Your task to perform on an android device: toggle wifi Image 0: 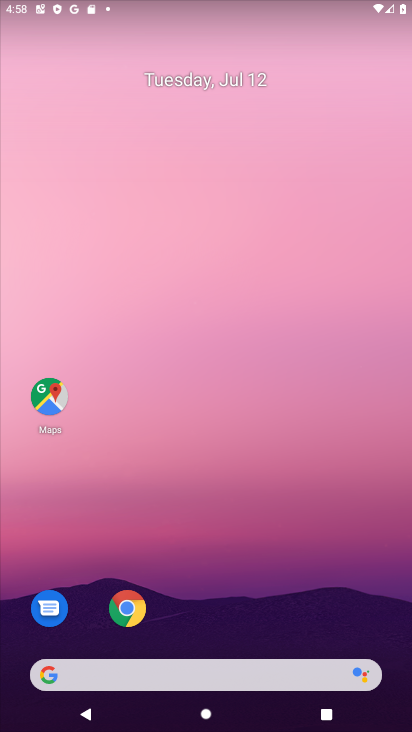
Step 0: drag from (132, 9) to (180, 604)
Your task to perform on an android device: toggle wifi Image 1: 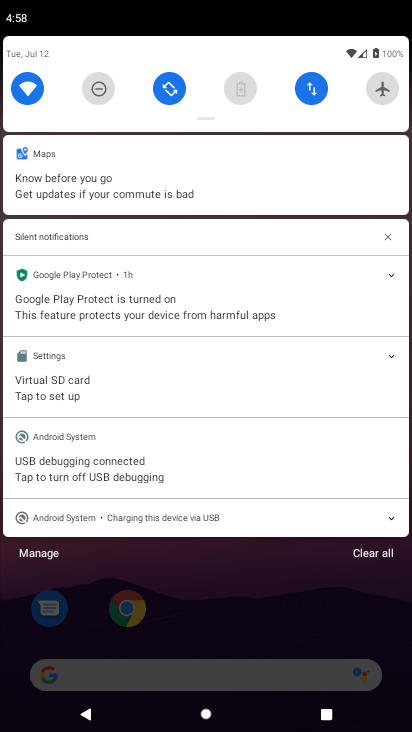
Step 1: click (21, 94)
Your task to perform on an android device: toggle wifi Image 2: 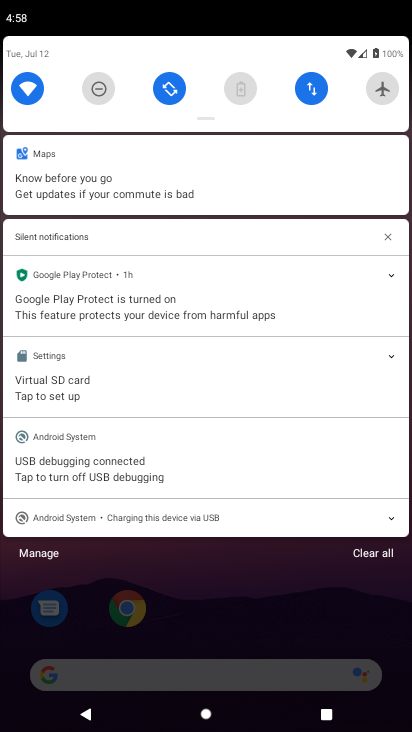
Step 2: click (21, 94)
Your task to perform on an android device: toggle wifi Image 3: 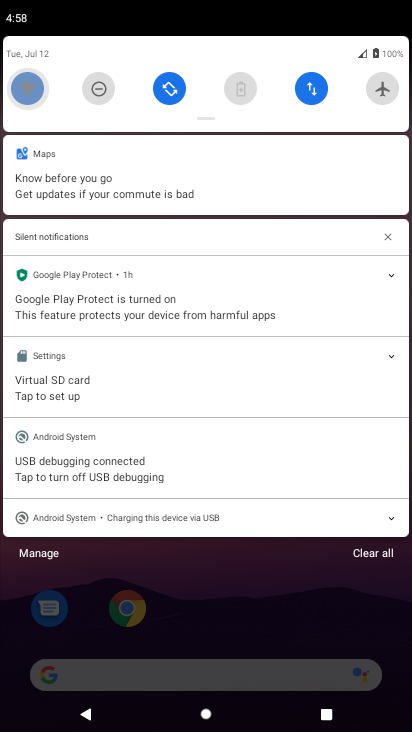
Step 3: click (21, 94)
Your task to perform on an android device: toggle wifi Image 4: 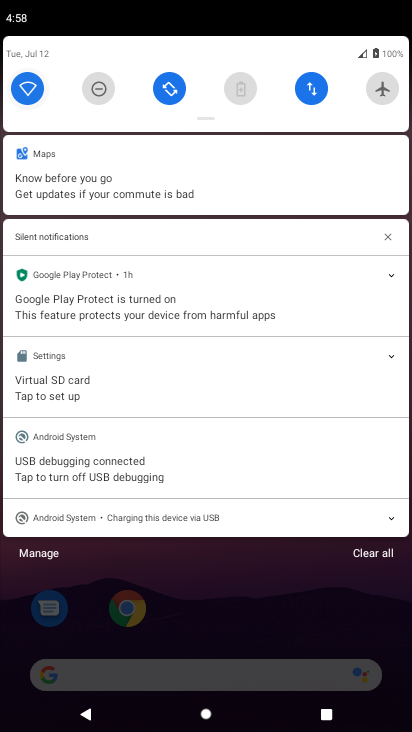
Step 4: click (21, 94)
Your task to perform on an android device: toggle wifi Image 5: 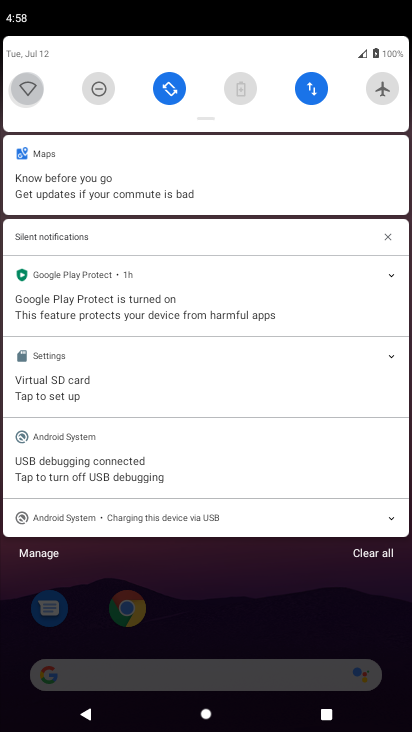
Step 5: click (21, 94)
Your task to perform on an android device: toggle wifi Image 6: 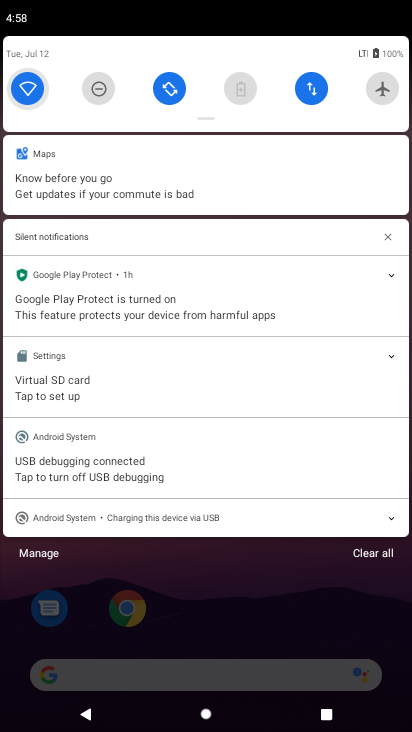
Step 6: click (21, 94)
Your task to perform on an android device: toggle wifi Image 7: 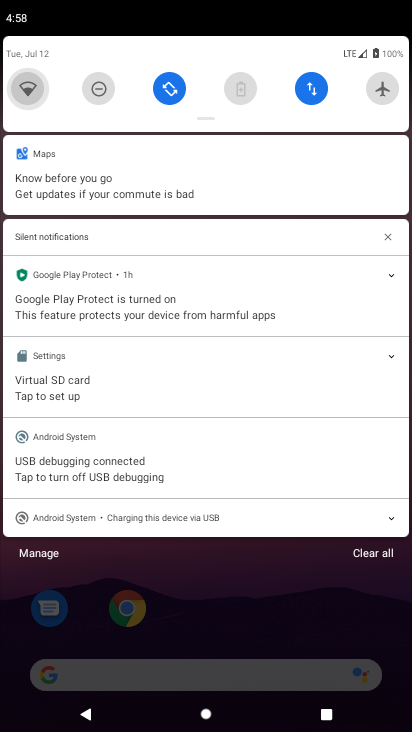
Step 7: click (21, 94)
Your task to perform on an android device: toggle wifi Image 8: 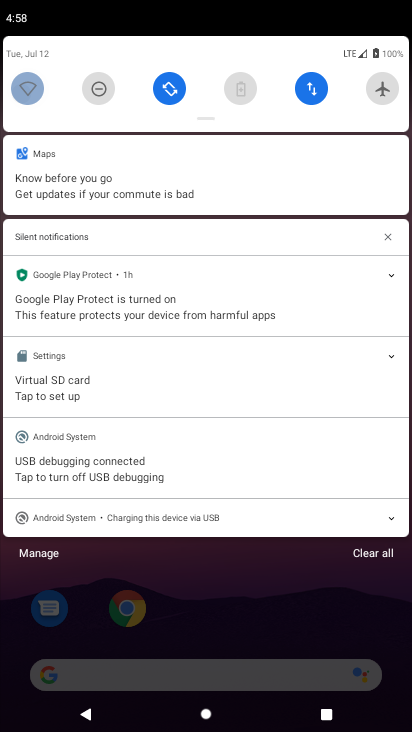
Step 8: click (21, 94)
Your task to perform on an android device: toggle wifi Image 9: 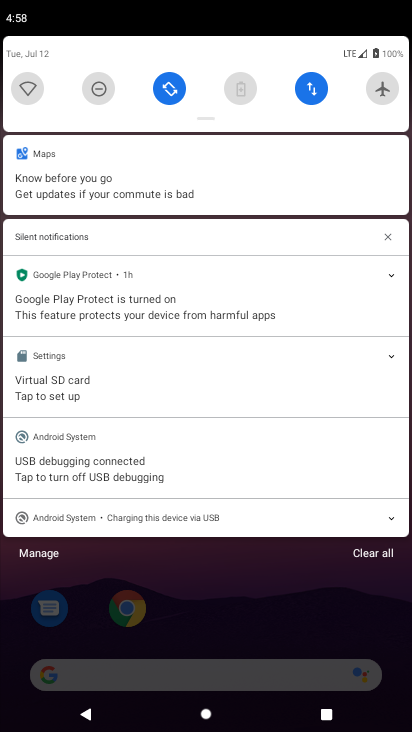
Step 9: click (21, 94)
Your task to perform on an android device: toggle wifi Image 10: 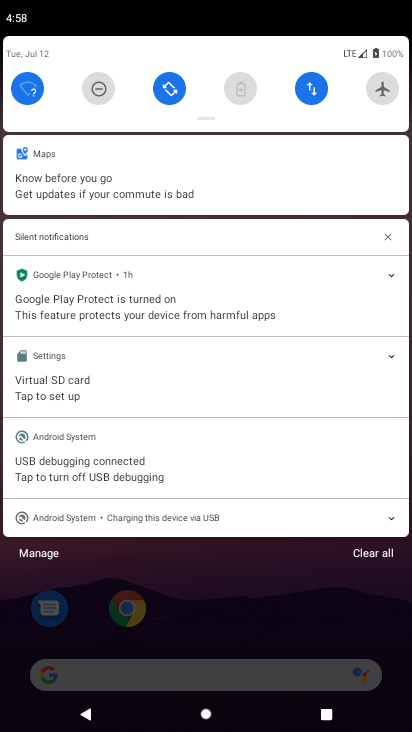
Step 10: task complete